Your task to perform on an android device: turn on translation in the chrome app Image 0: 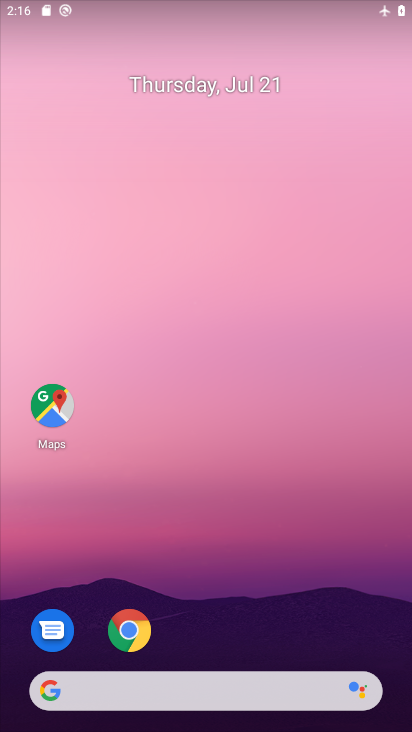
Step 0: drag from (271, 473) to (251, 231)
Your task to perform on an android device: turn on translation in the chrome app Image 1: 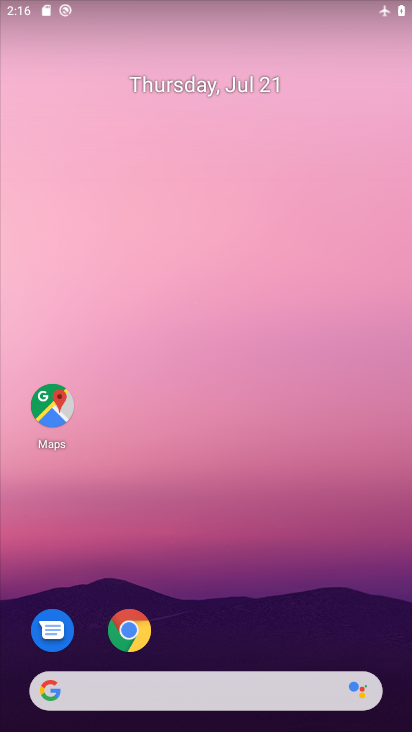
Step 1: drag from (210, 597) to (176, 256)
Your task to perform on an android device: turn on translation in the chrome app Image 2: 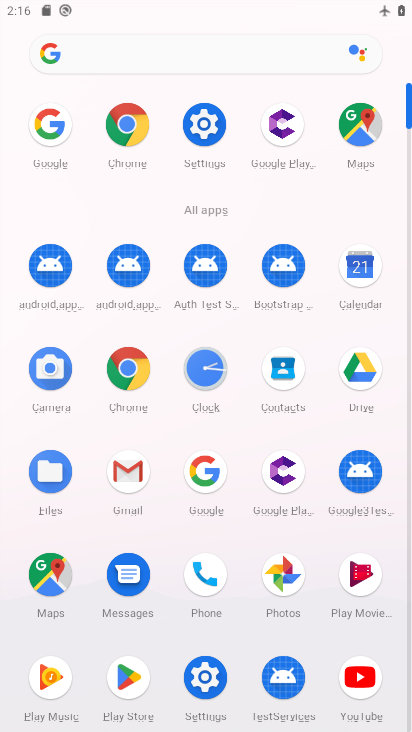
Step 2: click (137, 365)
Your task to perform on an android device: turn on translation in the chrome app Image 3: 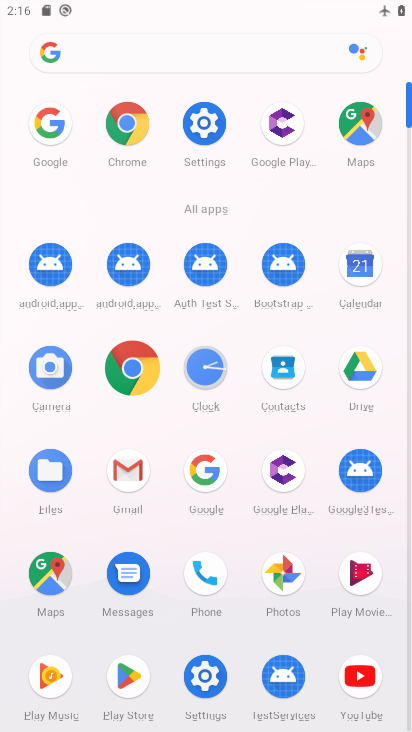
Step 3: click (134, 363)
Your task to perform on an android device: turn on translation in the chrome app Image 4: 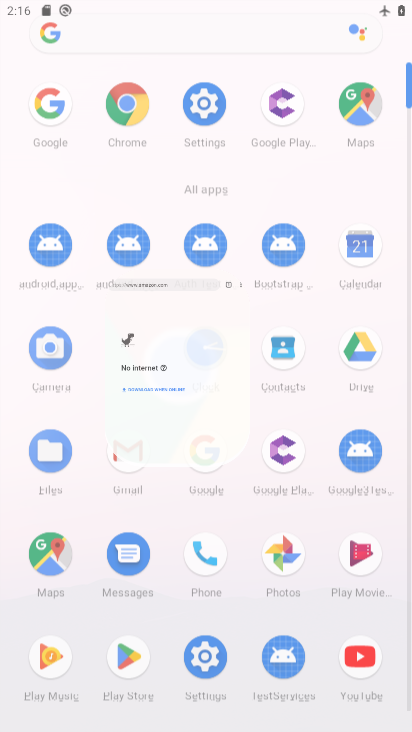
Step 4: click (134, 363)
Your task to perform on an android device: turn on translation in the chrome app Image 5: 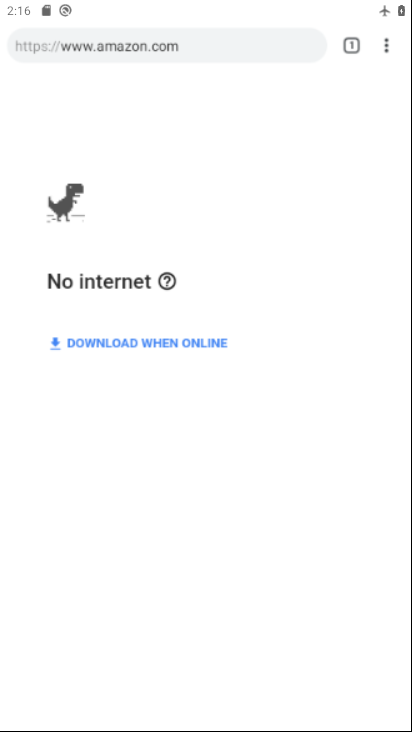
Step 5: click (134, 362)
Your task to perform on an android device: turn on translation in the chrome app Image 6: 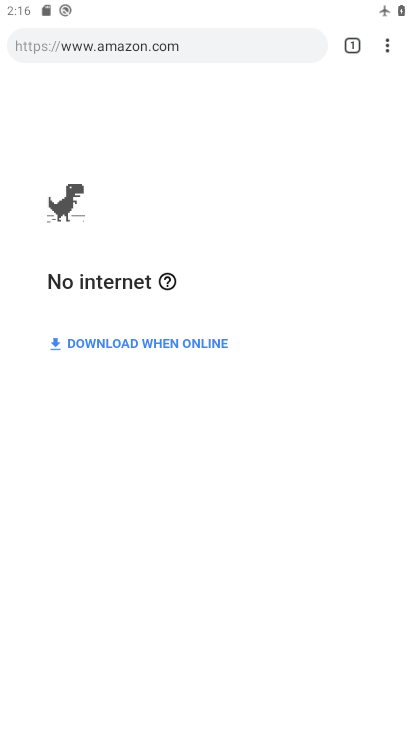
Step 6: press back button
Your task to perform on an android device: turn on translation in the chrome app Image 7: 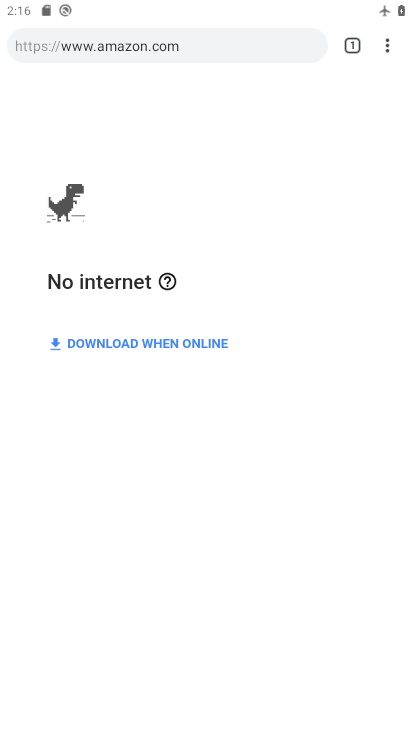
Step 7: press back button
Your task to perform on an android device: turn on translation in the chrome app Image 8: 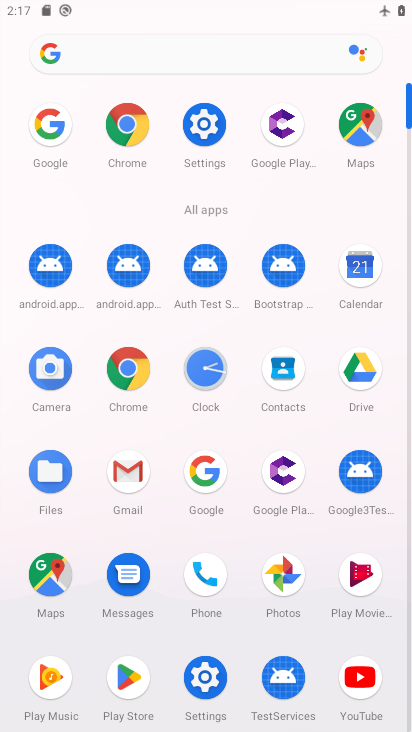
Step 8: click (135, 130)
Your task to perform on an android device: turn on translation in the chrome app Image 9: 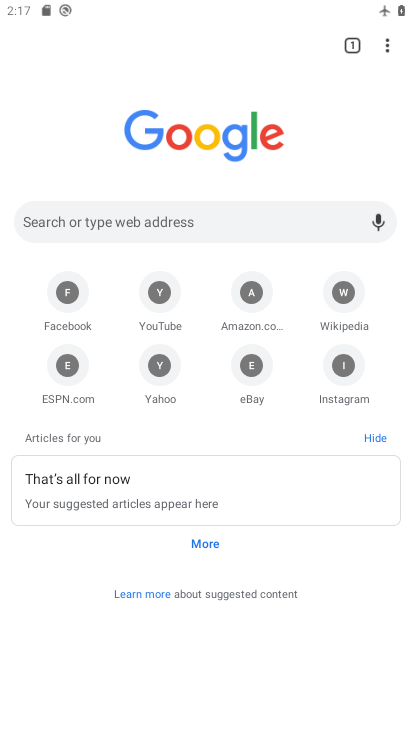
Step 9: drag from (382, 44) to (209, 375)
Your task to perform on an android device: turn on translation in the chrome app Image 10: 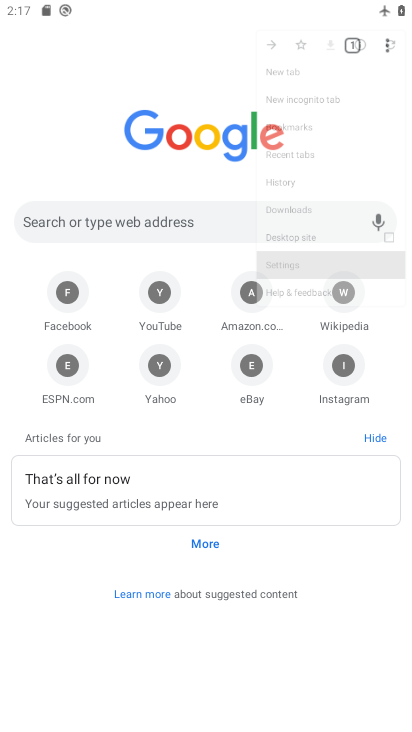
Step 10: click (192, 389)
Your task to perform on an android device: turn on translation in the chrome app Image 11: 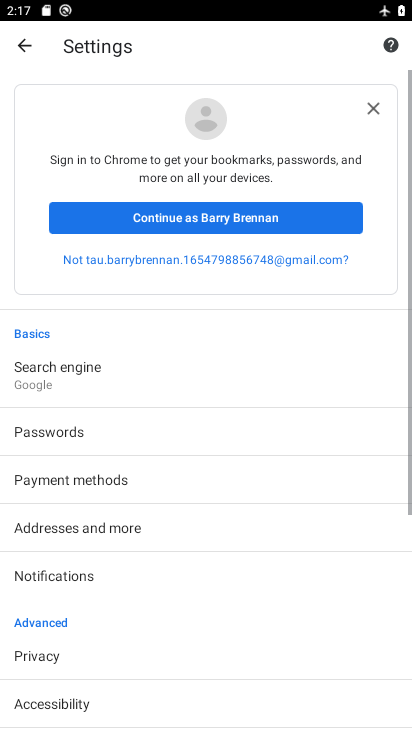
Step 11: drag from (110, 552) to (119, 125)
Your task to perform on an android device: turn on translation in the chrome app Image 12: 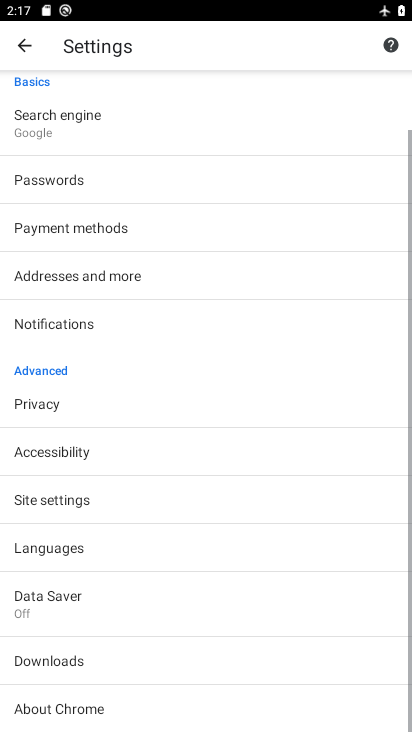
Step 12: drag from (236, 488) to (182, 64)
Your task to perform on an android device: turn on translation in the chrome app Image 13: 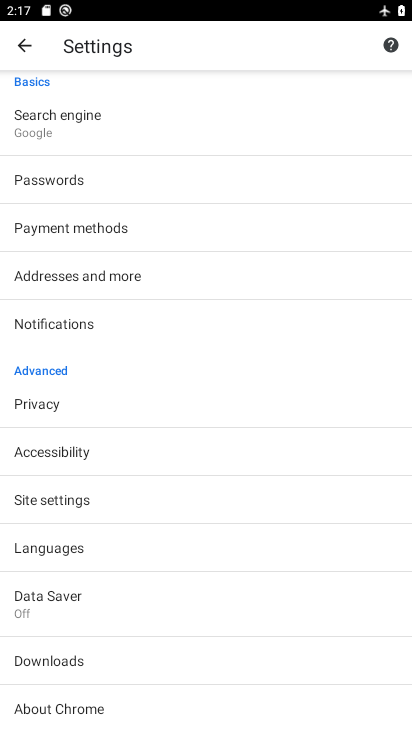
Step 13: click (51, 552)
Your task to perform on an android device: turn on translation in the chrome app Image 14: 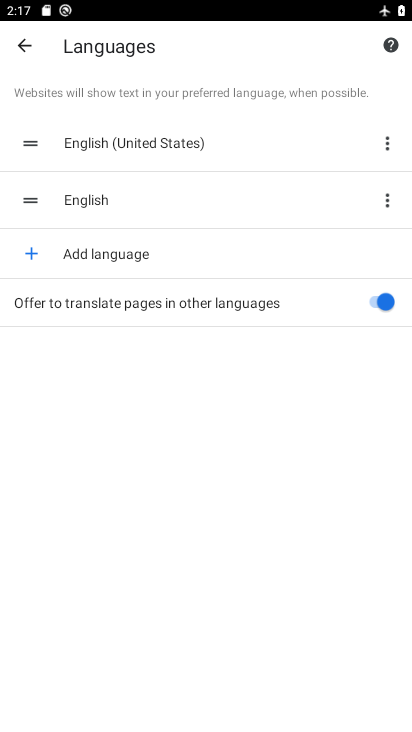
Step 14: task complete